Your task to perform on an android device: Is it going to rain tomorrow? Image 0: 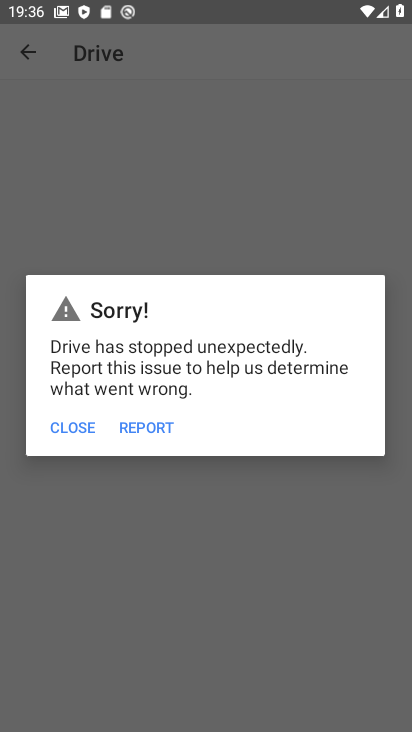
Step 0: press home button
Your task to perform on an android device: Is it going to rain tomorrow? Image 1: 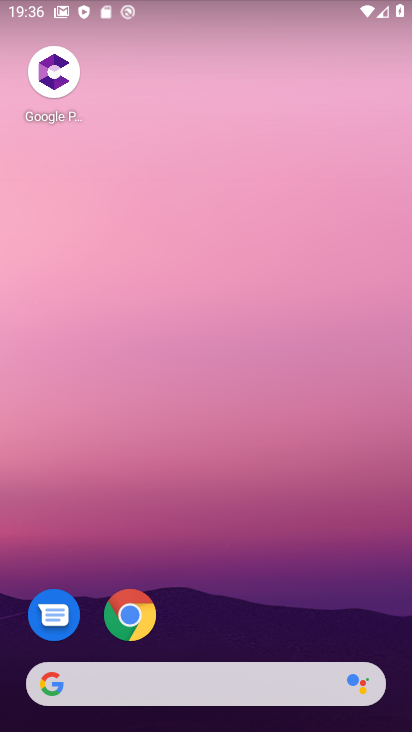
Step 1: click (221, 688)
Your task to perform on an android device: Is it going to rain tomorrow? Image 2: 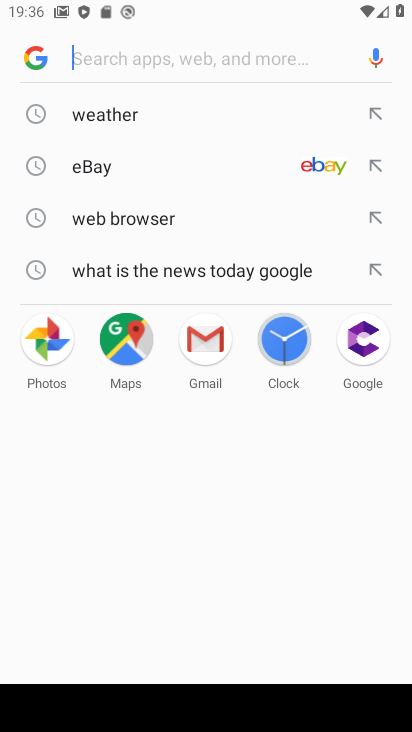
Step 2: click (171, 115)
Your task to perform on an android device: Is it going to rain tomorrow? Image 3: 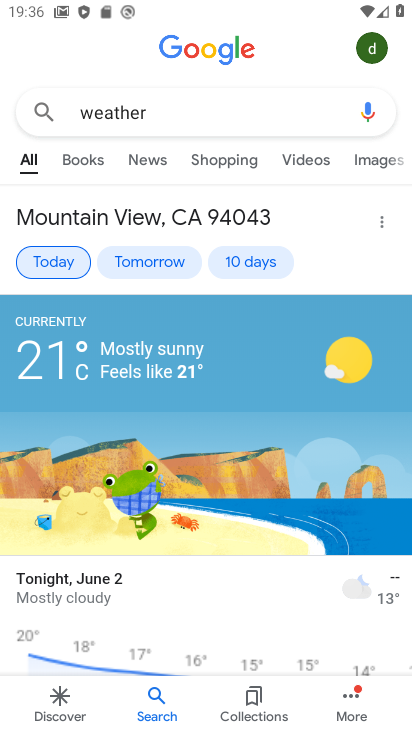
Step 3: click (136, 272)
Your task to perform on an android device: Is it going to rain tomorrow? Image 4: 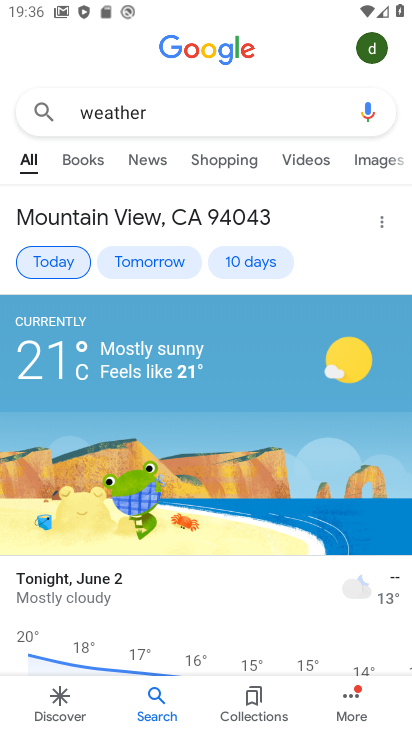
Step 4: task complete